Your task to perform on an android device: Go to Google maps Image 0: 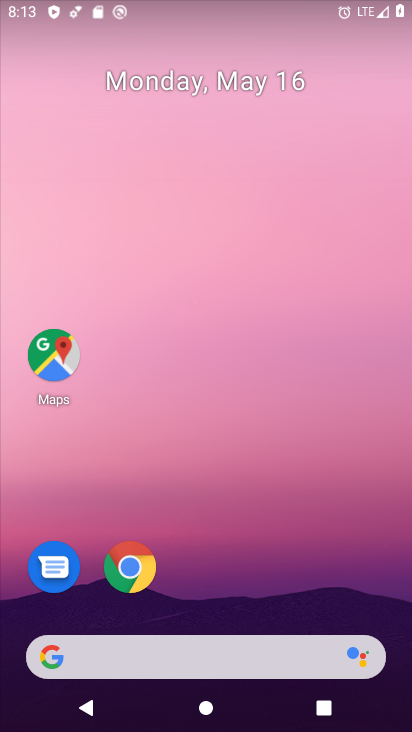
Step 0: click (50, 363)
Your task to perform on an android device: Go to Google maps Image 1: 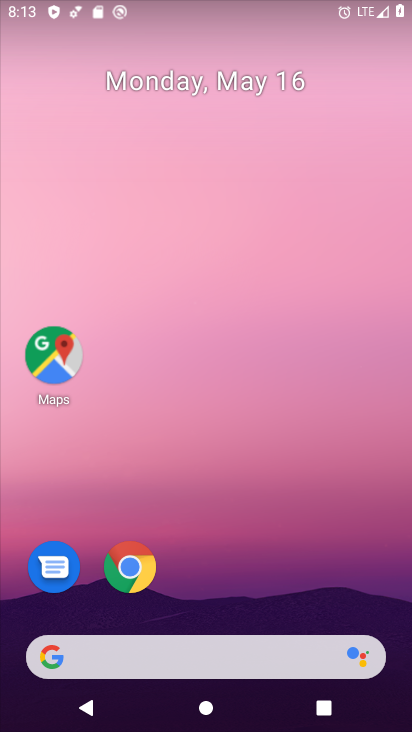
Step 1: click (59, 368)
Your task to perform on an android device: Go to Google maps Image 2: 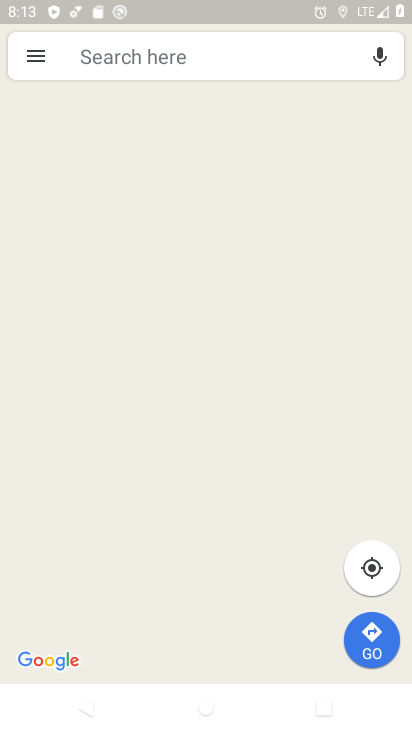
Step 2: click (195, 336)
Your task to perform on an android device: Go to Google maps Image 3: 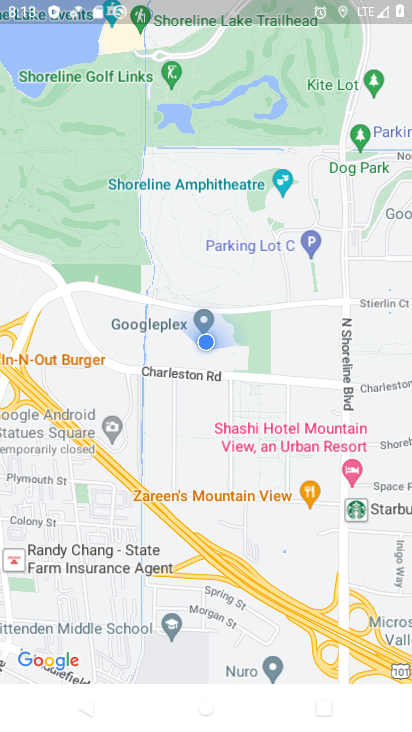
Step 3: task complete